Your task to perform on an android device: allow cookies in the chrome app Image 0: 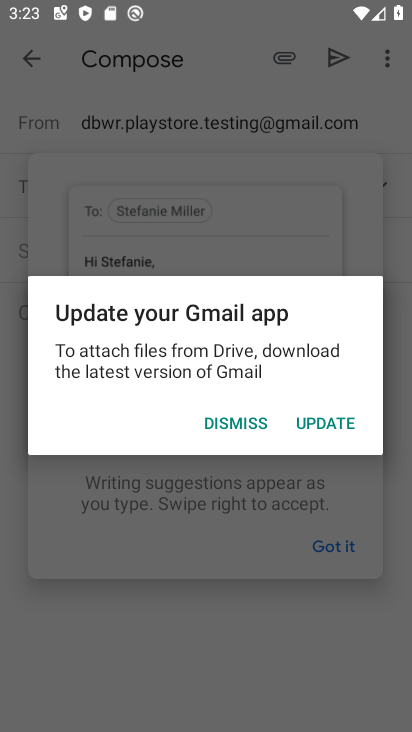
Step 0: press home button
Your task to perform on an android device: allow cookies in the chrome app Image 1: 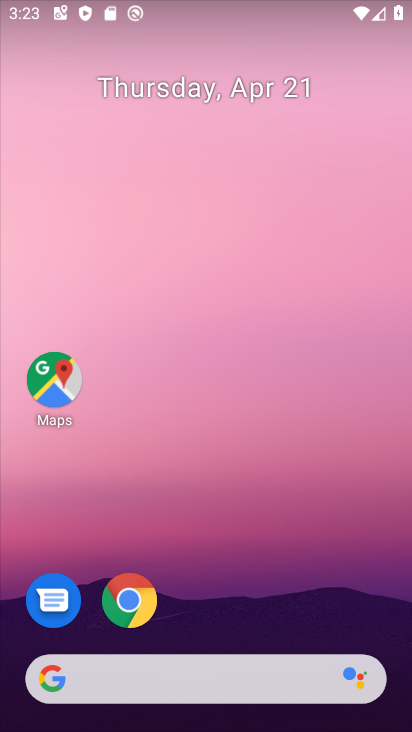
Step 1: click (124, 604)
Your task to perform on an android device: allow cookies in the chrome app Image 2: 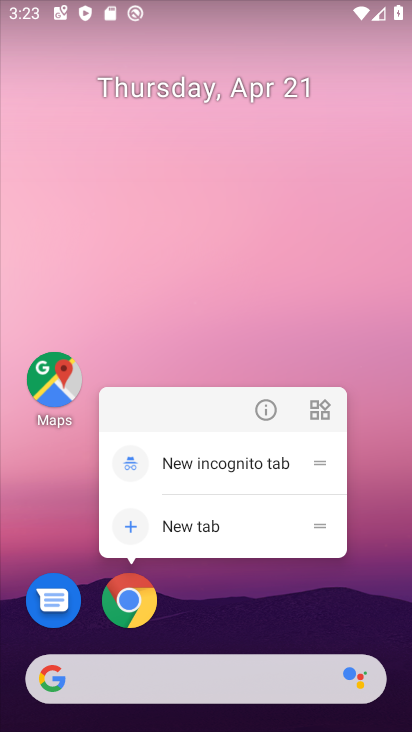
Step 2: click (127, 600)
Your task to perform on an android device: allow cookies in the chrome app Image 3: 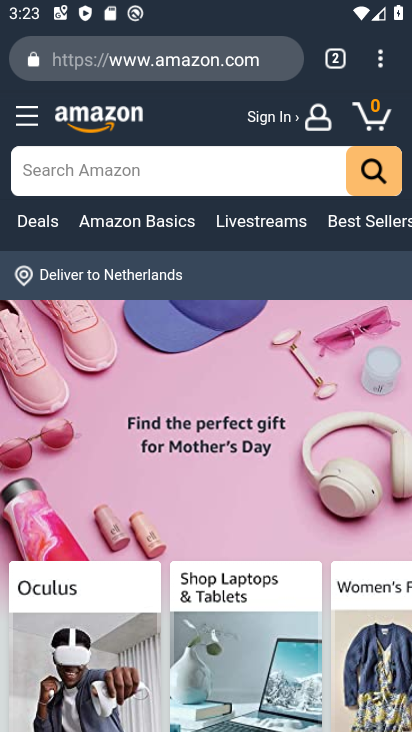
Step 3: click (381, 60)
Your task to perform on an android device: allow cookies in the chrome app Image 4: 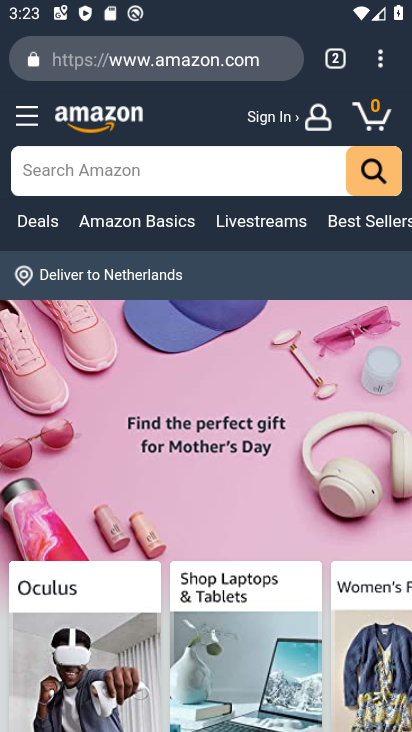
Step 4: click (381, 63)
Your task to perform on an android device: allow cookies in the chrome app Image 5: 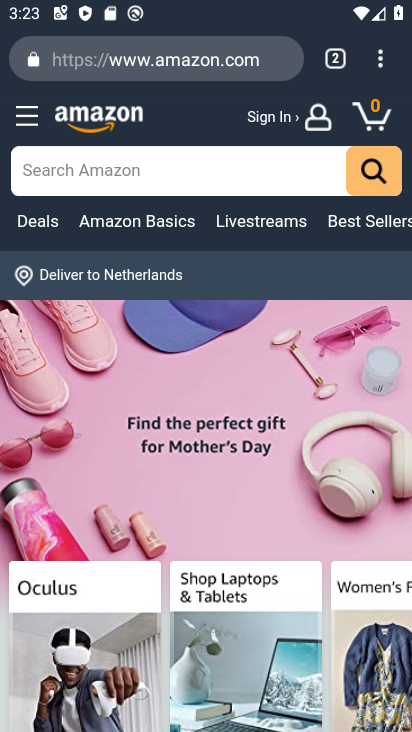
Step 5: click (382, 53)
Your task to perform on an android device: allow cookies in the chrome app Image 6: 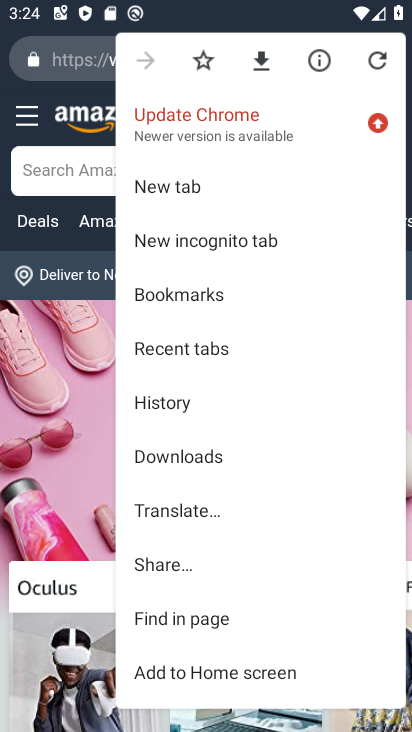
Step 6: drag from (248, 608) to (241, 414)
Your task to perform on an android device: allow cookies in the chrome app Image 7: 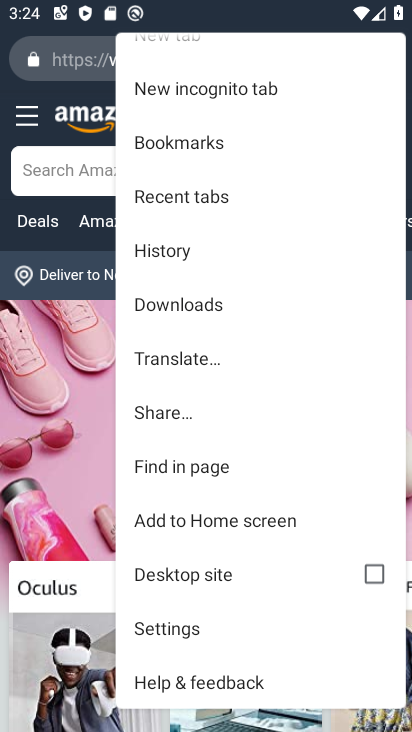
Step 7: click (234, 626)
Your task to perform on an android device: allow cookies in the chrome app Image 8: 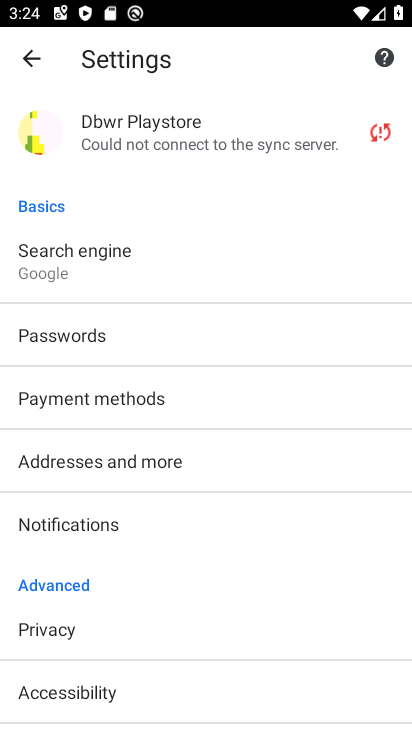
Step 8: drag from (49, 638) to (83, 320)
Your task to perform on an android device: allow cookies in the chrome app Image 9: 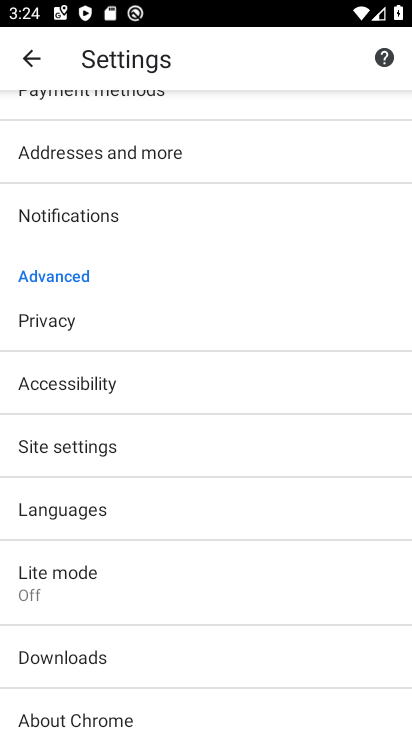
Step 9: click (31, 436)
Your task to perform on an android device: allow cookies in the chrome app Image 10: 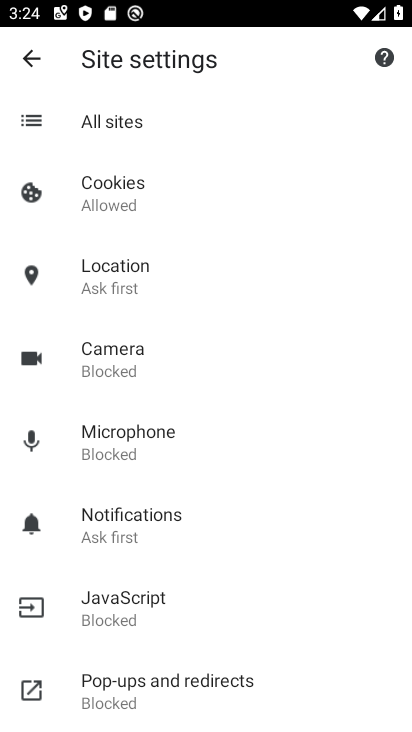
Step 10: click (148, 194)
Your task to perform on an android device: allow cookies in the chrome app Image 11: 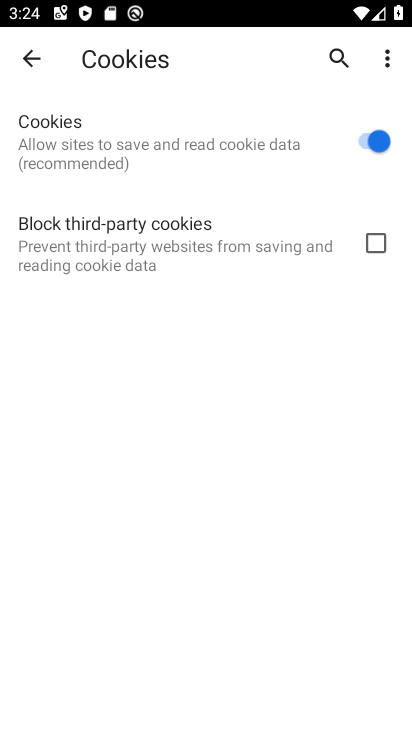
Step 11: task complete